Your task to perform on an android device: toggle notification dots Image 0: 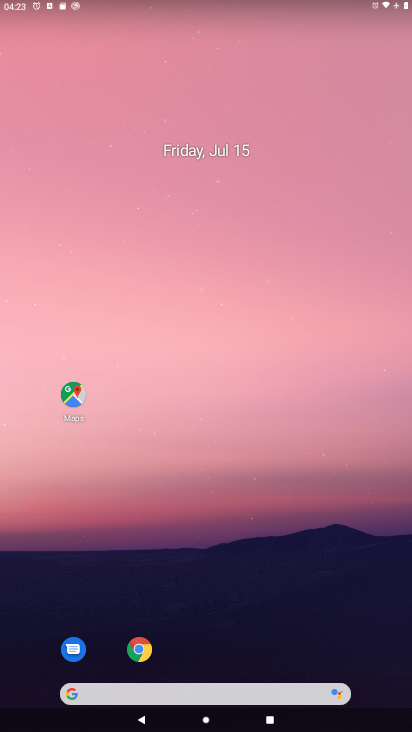
Step 0: drag from (369, 679) to (313, 86)
Your task to perform on an android device: toggle notification dots Image 1: 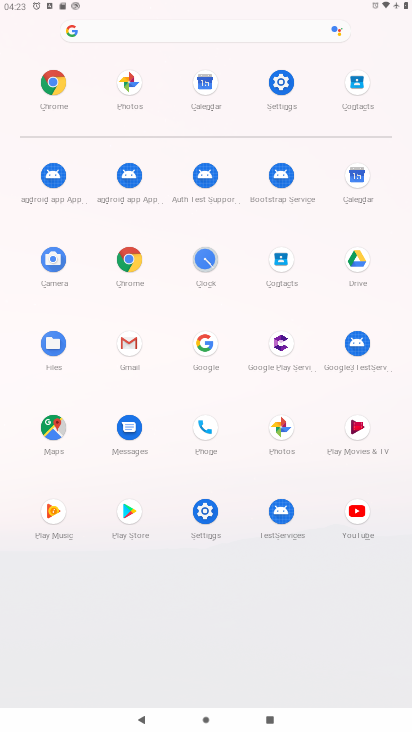
Step 1: click (204, 511)
Your task to perform on an android device: toggle notification dots Image 2: 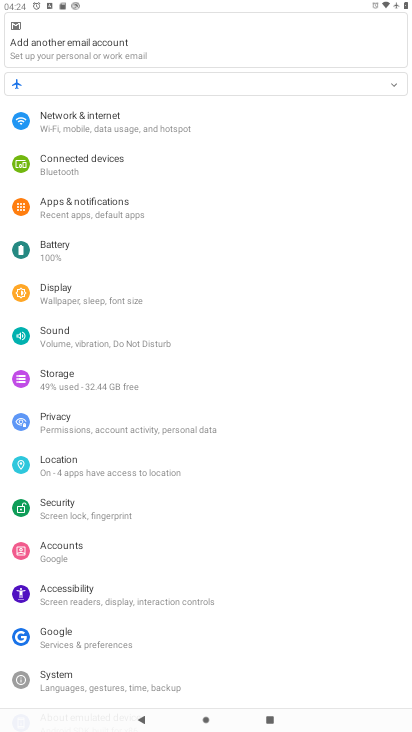
Step 2: click (75, 200)
Your task to perform on an android device: toggle notification dots Image 3: 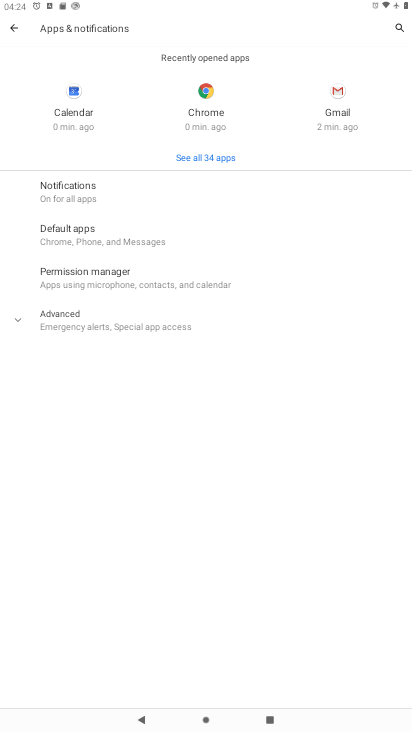
Step 3: click (61, 188)
Your task to perform on an android device: toggle notification dots Image 4: 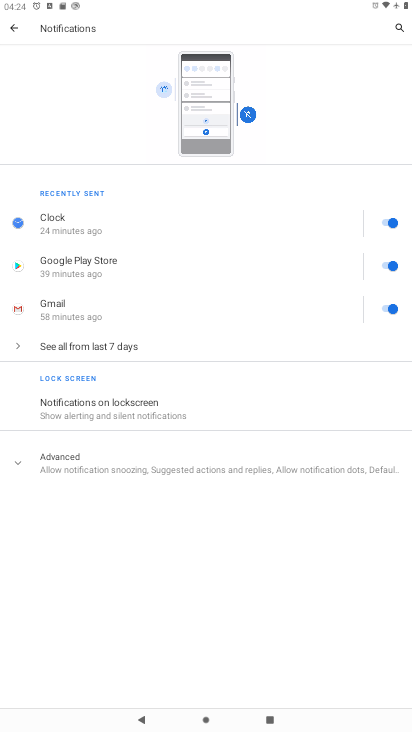
Step 4: click (17, 459)
Your task to perform on an android device: toggle notification dots Image 5: 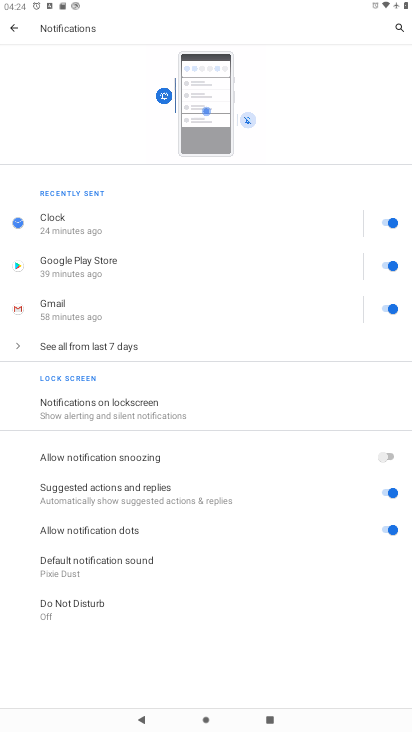
Step 5: click (382, 528)
Your task to perform on an android device: toggle notification dots Image 6: 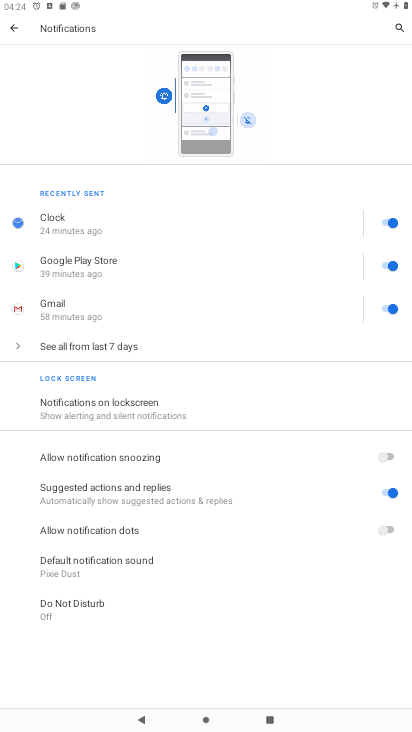
Step 6: task complete